Your task to perform on an android device: View the shopping cart on walmart.com. Search for razer huntsman on walmart.com, select the first entry, add it to the cart, then select checkout. Image 0: 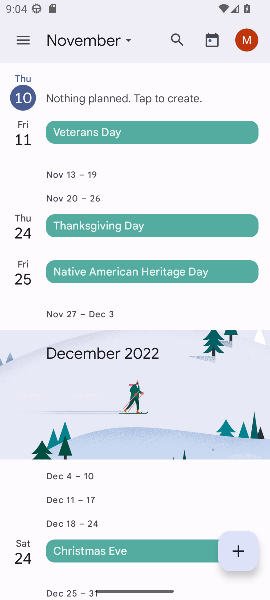
Step 0: press home button
Your task to perform on an android device: View the shopping cart on walmart.com. Search for razer huntsman on walmart.com, select the first entry, add it to the cart, then select checkout. Image 1: 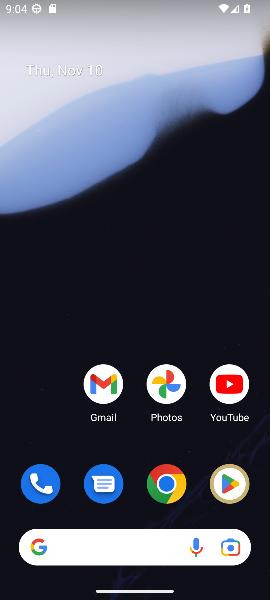
Step 1: click (163, 488)
Your task to perform on an android device: View the shopping cart on walmart.com. Search for razer huntsman on walmart.com, select the first entry, add it to the cart, then select checkout. Image 2: 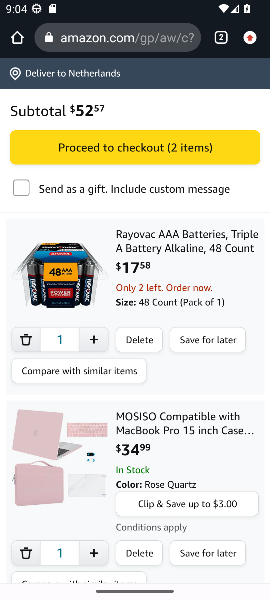
Step 2: click (120, 39)
Your task to perform on an android device: View the shopping cart on walmart.com. Search for razer huntsman on walmart.com, select the first entry, add it to the cart, then select checkout. Image 3: 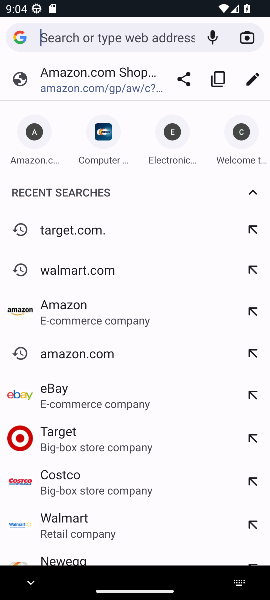
Step 3: click (74, 268)
Your task to perform on an android device: View the shopping cart on walmart.com. Search for razer huntsman on walmart.com, select the first entry, add it to the cart, then select checkout. Image 4: 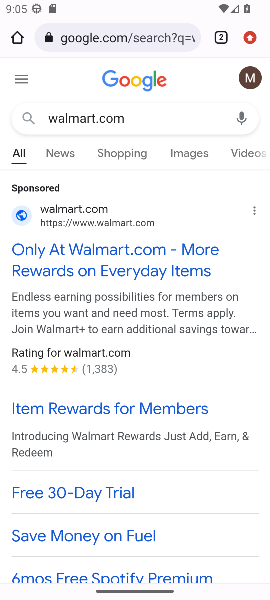
Step 4: drag from (75, 422) to (71, 198)
Your task to perform on an android device: View the shopping cart on walmart.com. Search for razer huntsman on walmart.com, select the first entry, add it to the cart, then select checkout. Image 5: 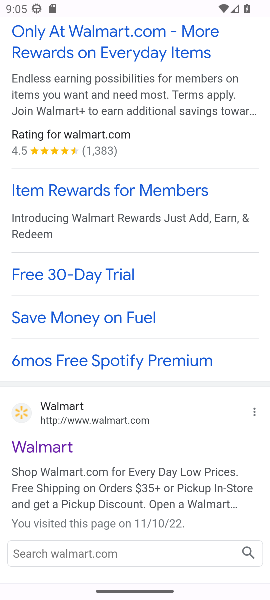
Step 5: click (33, 445)
Your task to perform on an android device: View the shopping cart on walmart.com. Search for razer huntsman on walmart.com, select the first entry, add it to the cart, then select checkout. Image 6: 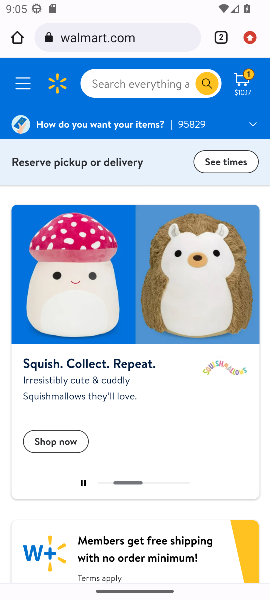
Step 6: click (245, 75)
Your task to perform on an android device: View the shopping cart on walmart.com. Search for razer huntsman on walmart.com, select the first entry, add it to the cart, then select checkout. Image 7: 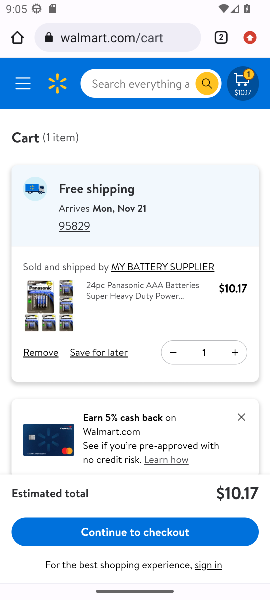
Step 7: click (107, 83)
Your task to perform on an android device: View the shopping cart on walmart.com. Search for razer huntsman on walmart.com, select the first entry, add it to the cart, then select checkout. Image 8: 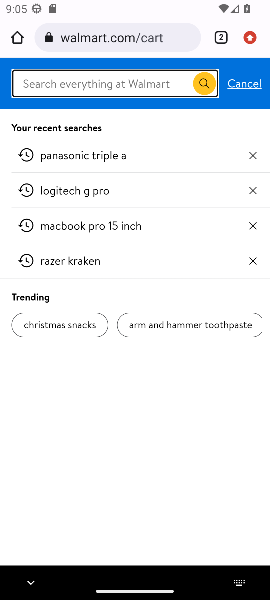
Step 8: type "razer huntsman "
Your task to perform on an android device: View the shopping cart on walmart.com. Search for razer huntsman on walmart.com, select the first entry, add it to the cart, then select checkout. Image 9: 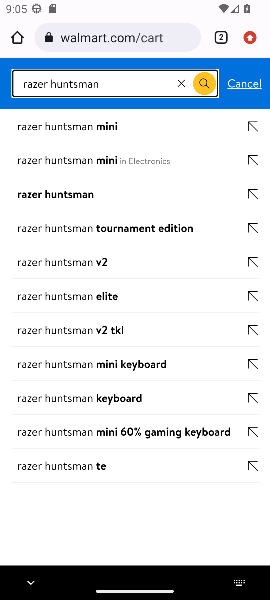
Step 9: click (64, 192)
Your task to perform on an android device: View the shopping cart on walmart.com. Search for razer huntsman on walmart.com, select the first entry, add it to the cart, then select checkout. Image 10: 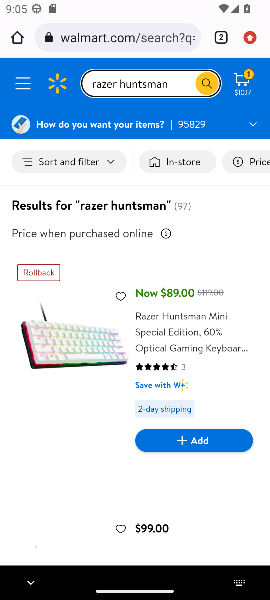
Step 10: click (204, 438)
Your task to perform on an android device: View the shopping cart on walmart.com. Search for razer huntsman on walmart.com, select the first entry, add it to the cart, then select checkout. Image 11: 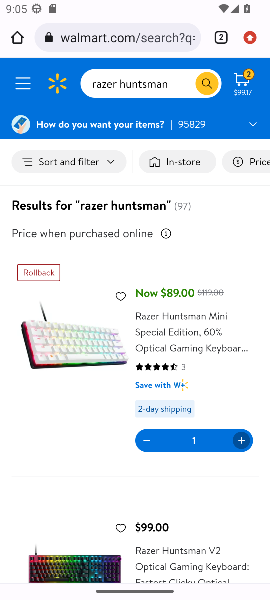
Step 11: click (238, 81)
Your task to perform on an android device: View the shopping cart on walmart.com. Search for razer huntsman on walmart.com, select the first entry, add it to the cart, then select checkout. Image 12: 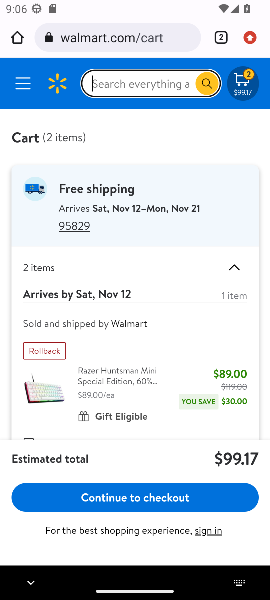
Step 12: click (120, 492)
Your task to perform on an android device: View the shopping cart on walmart.com. Search for razer huntsman on walmart.com, select the first entry, add it to the cart, then select checkout. Image 13: 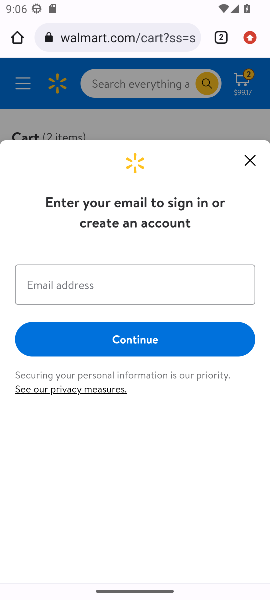
Step 13: task complete